Your task to perform on an android device: stop showing notifications on the lock screen Image 0: 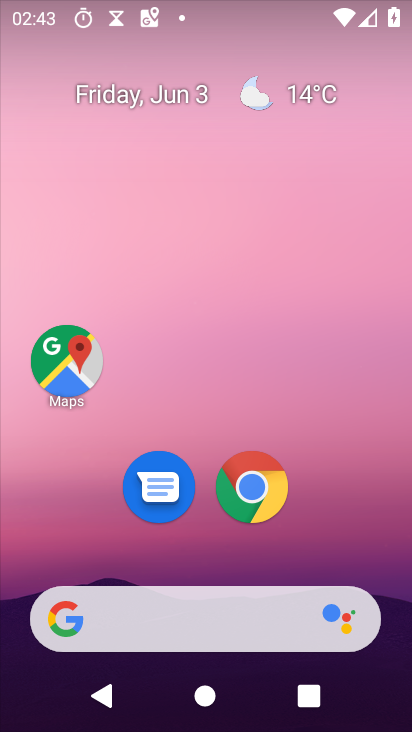
Step 0: press home button
Your task to perform on an android device: stop showing notifications on the lock screen Image 1: 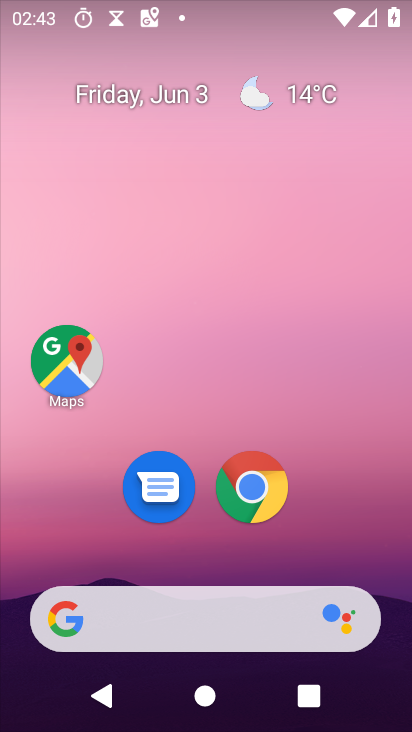
Step 1: drag from (331, 537) to (145, 25)
Your task to perform on an android device: stop showing notifications on the lock screen Image 2: 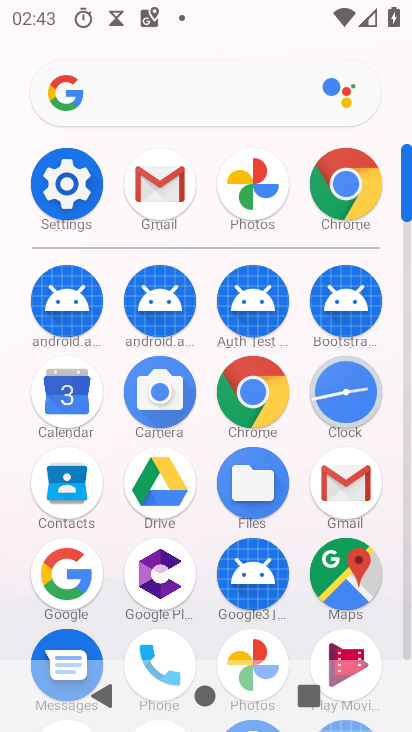
Step 2: click (77, 188)
Your task to perform on an android device: stop showing notifications on the lock screen Image 3: 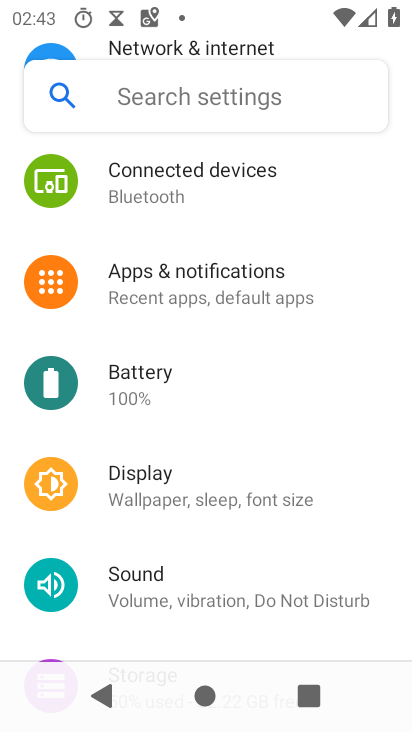
Step 3: click (212, 314)
Your task to perform on an android device: stop showing notifications on the lock screen Image 4: 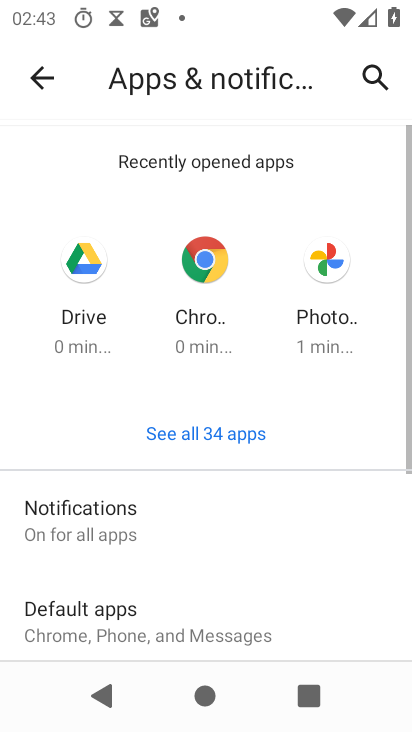
Step 4: click (134, 526)
Your task to perform on an android device: stop showing notifications on the lock screen Image 5: 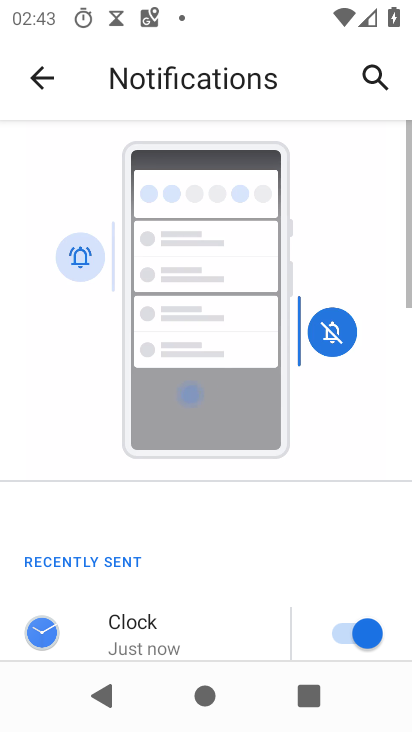
Step 5: drag from (247, 583) to (199, 166)
Your task to perform on an android device: stop showing notifications on the lock screen Image 6: 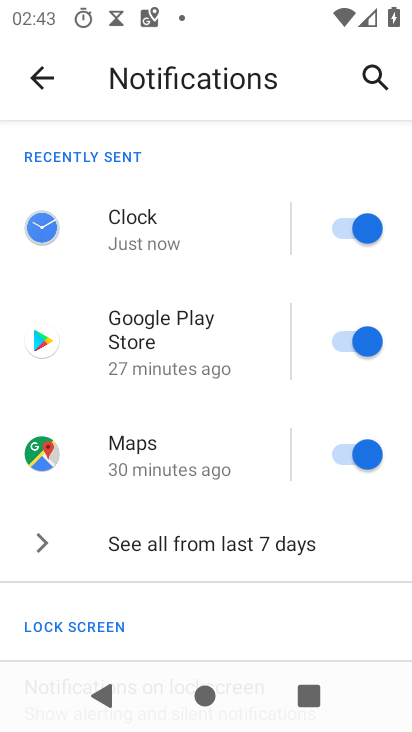
Step 6: click (222, 637)
Your task to perform on an android device: stop showing notifications on the lock screen Image 7: 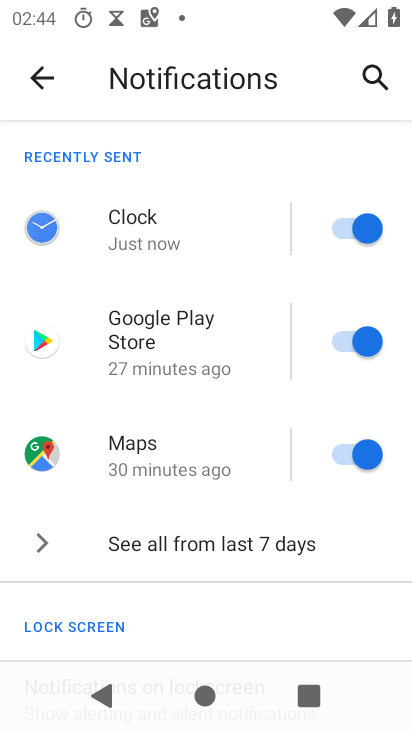
Step 7: drag from (214, 626) to (196, 318)
Your task to perform on an android device: stop showing notifications on the lock screen Image 8: 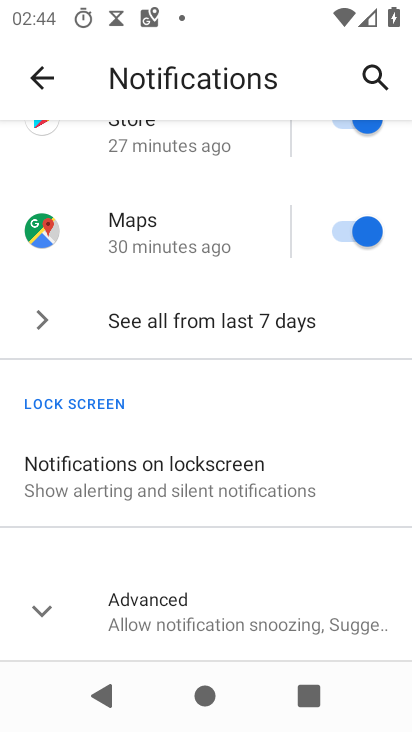
Step 8: click (198, 483)
Your task to perform on an android device: stop showing notifications on the lock screen Image 9: 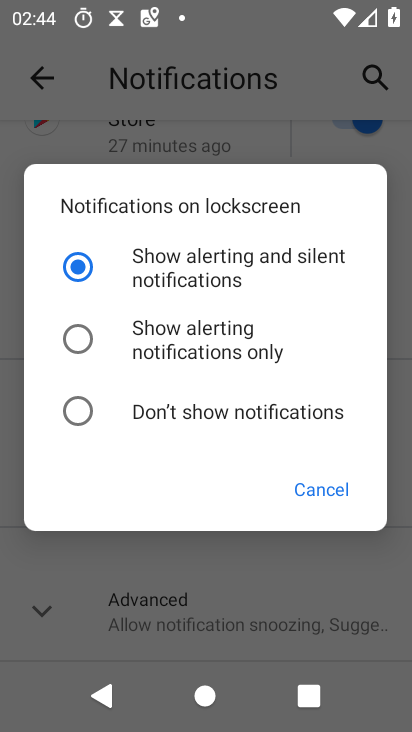
Step 9: click (167, 422)
Your task to perform on an android device: stop showing notifications on the lock screen Image 10: 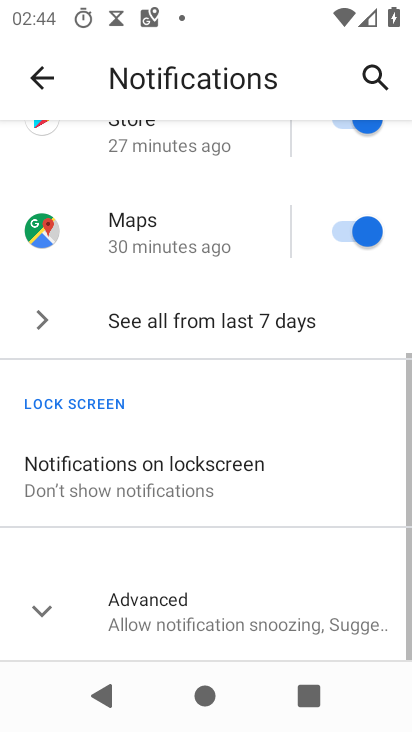
Step 10: task complete